Your task to perform on an android device: open app "Gmail" (install if not already installed) and go to login screen Image 0: 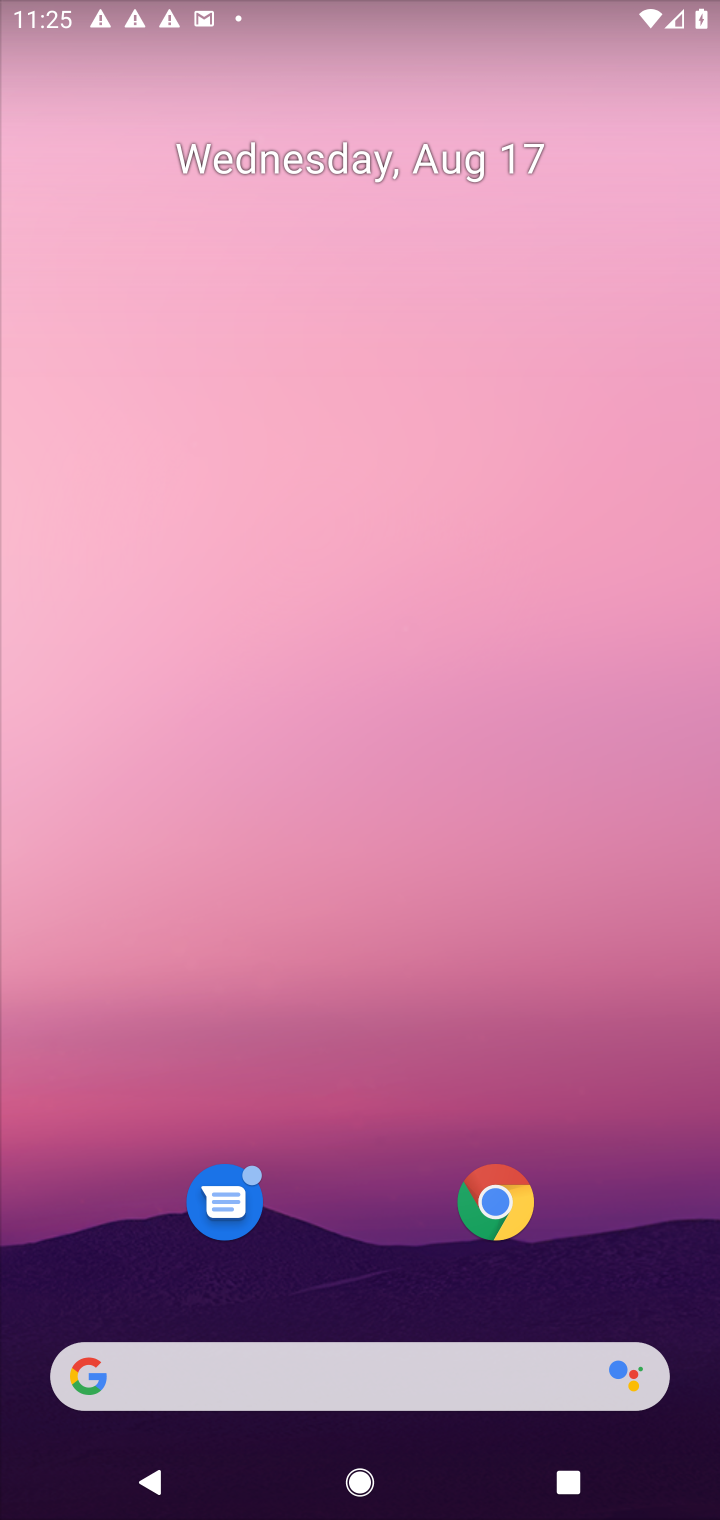
Step 0: drag from (349, 1105) to (264, 259)
Your task to perform on an android device: open app "Gmail" (install if not already installed) and go to login screen Image 1: 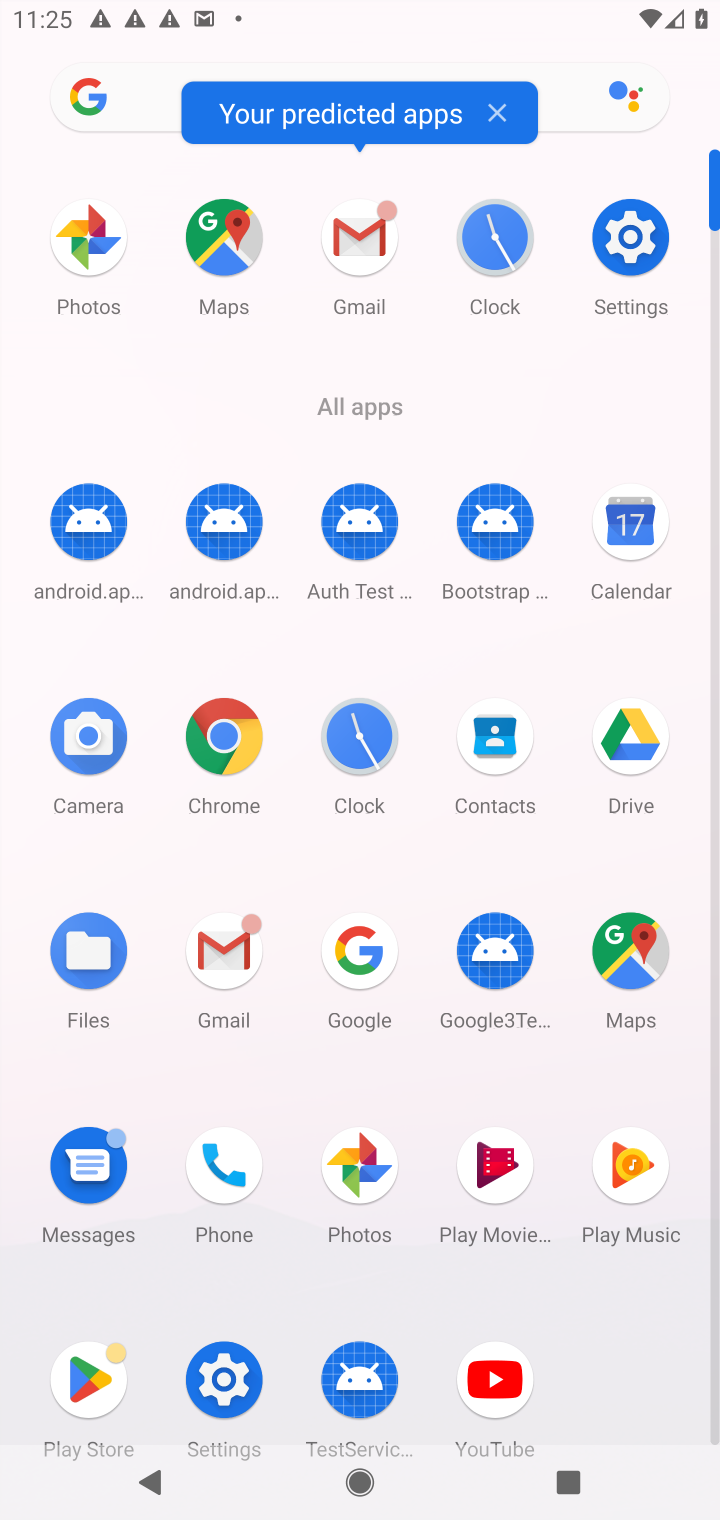
Step 1: click (213, 949)
Your task to perform on an android device: open app "Gmail" (install if not already installed) and go to login screen Image 2: 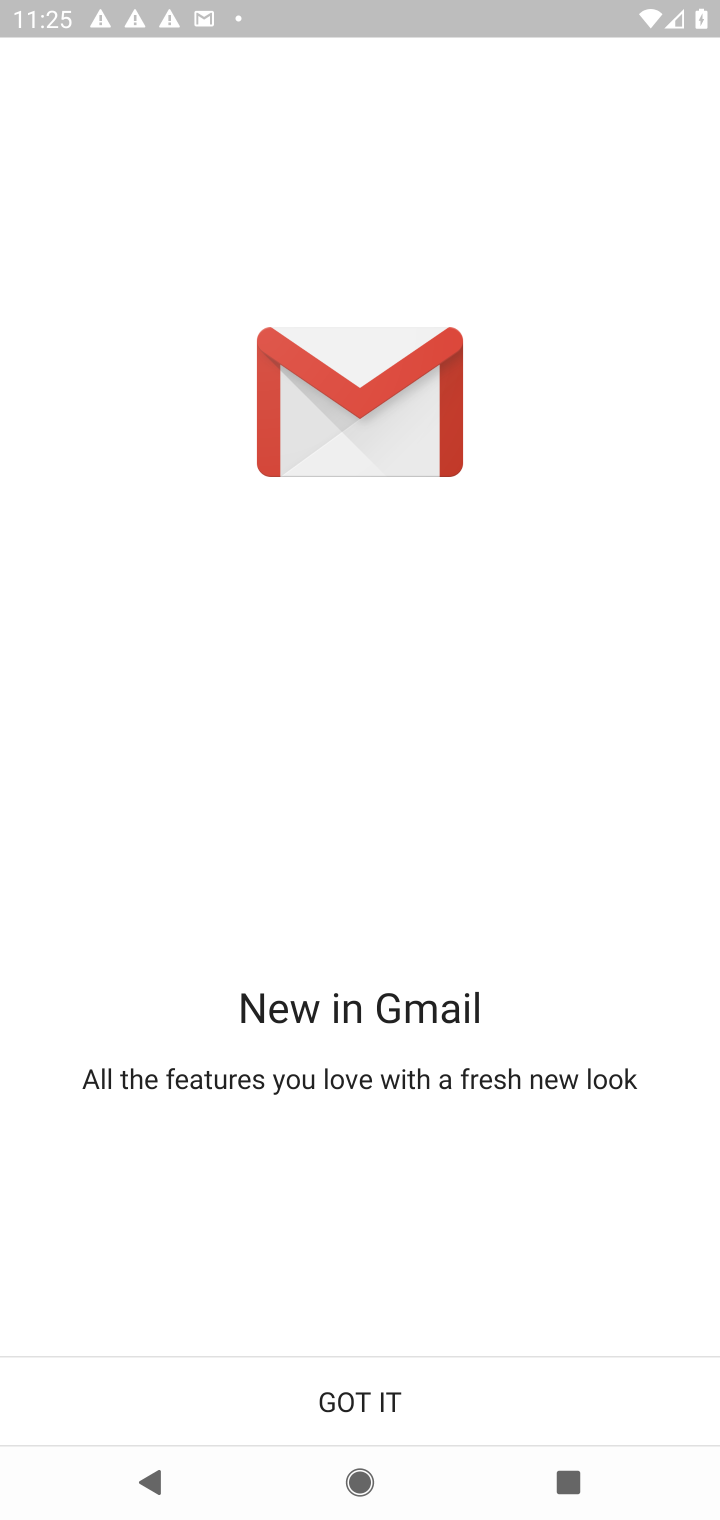
Step 2: click (281, 1401)
Your task to perform on an android device: open app "Gmail" (install if not already installed) and go to login screen Image 3: 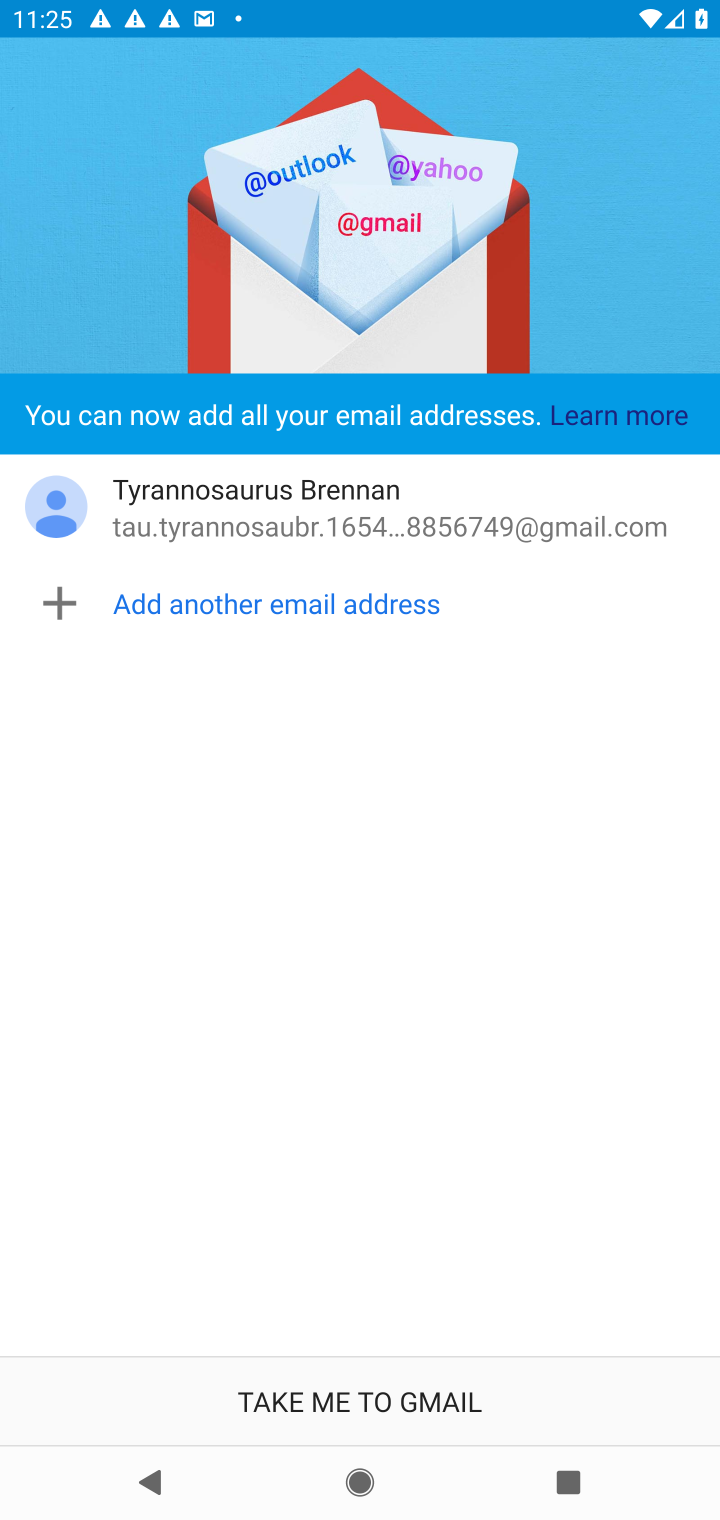
Step 3: click (428, 1373)
Your task to perform on an android device: open app "Gmail" (install if not already installed) and go to login screen Image 4: 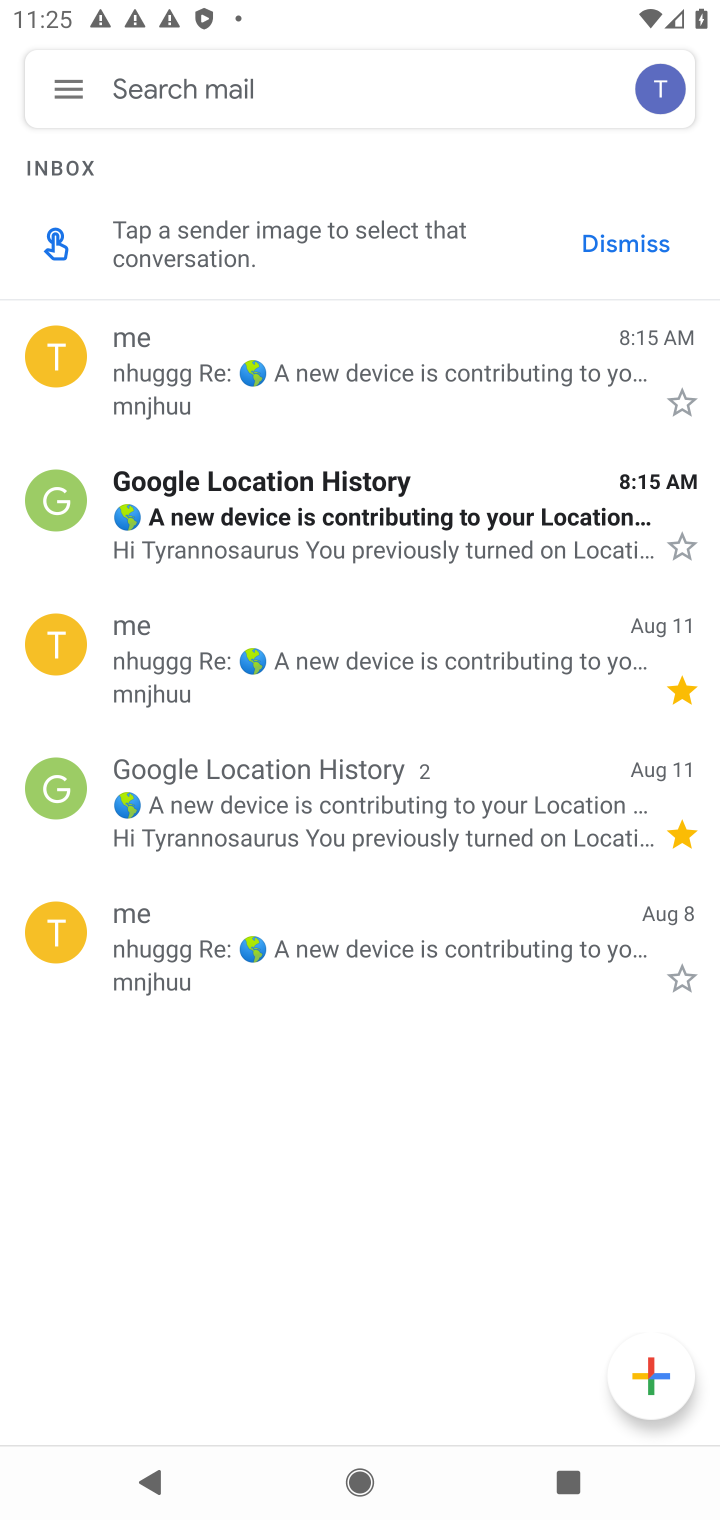
Step 4: click (670, 87)
Your task to perform on an android device: open app "Gmail" (install if not already installed) and go to login screen Image 5: 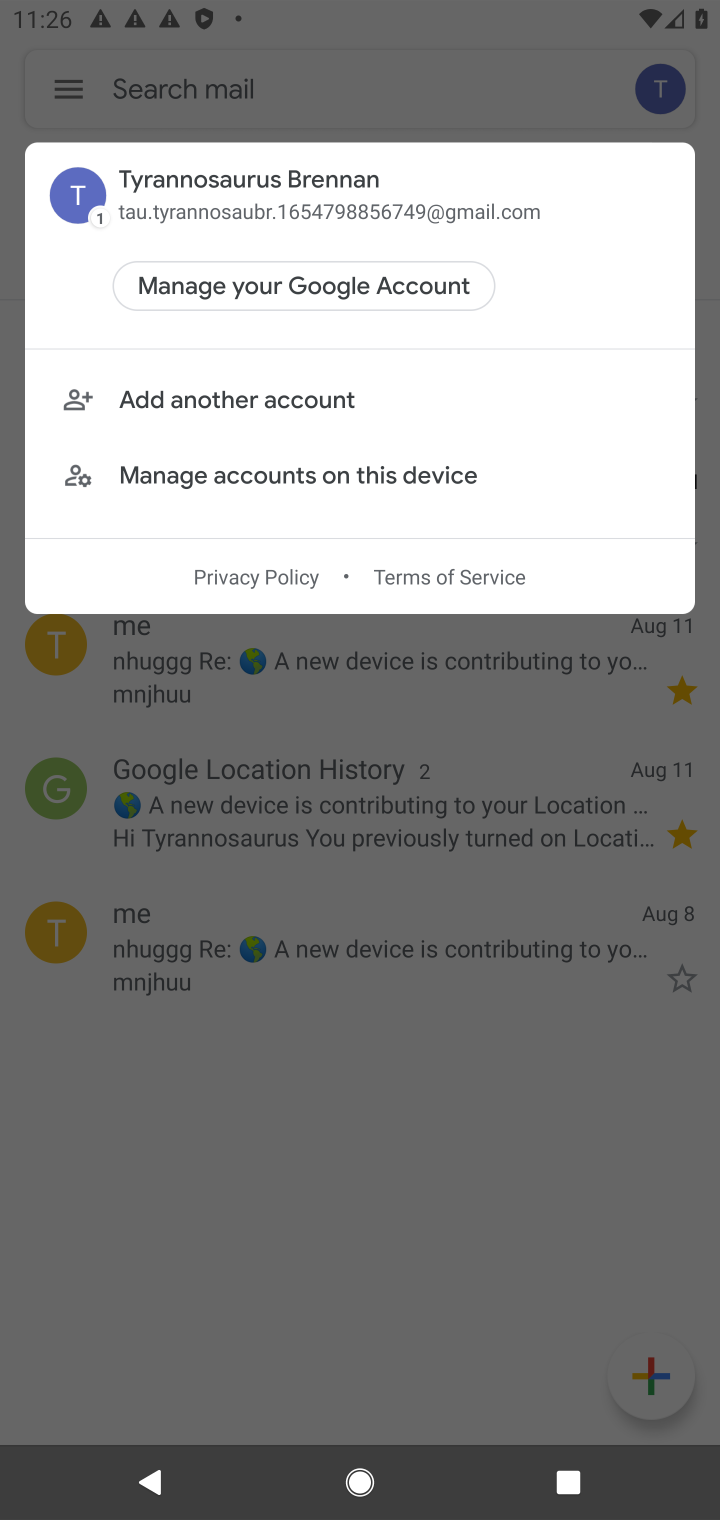
Step 5: click (163, 392)
Your task to perform on an android device: open app "Gmail" (install if not already installed) and go to login screen Image 6: 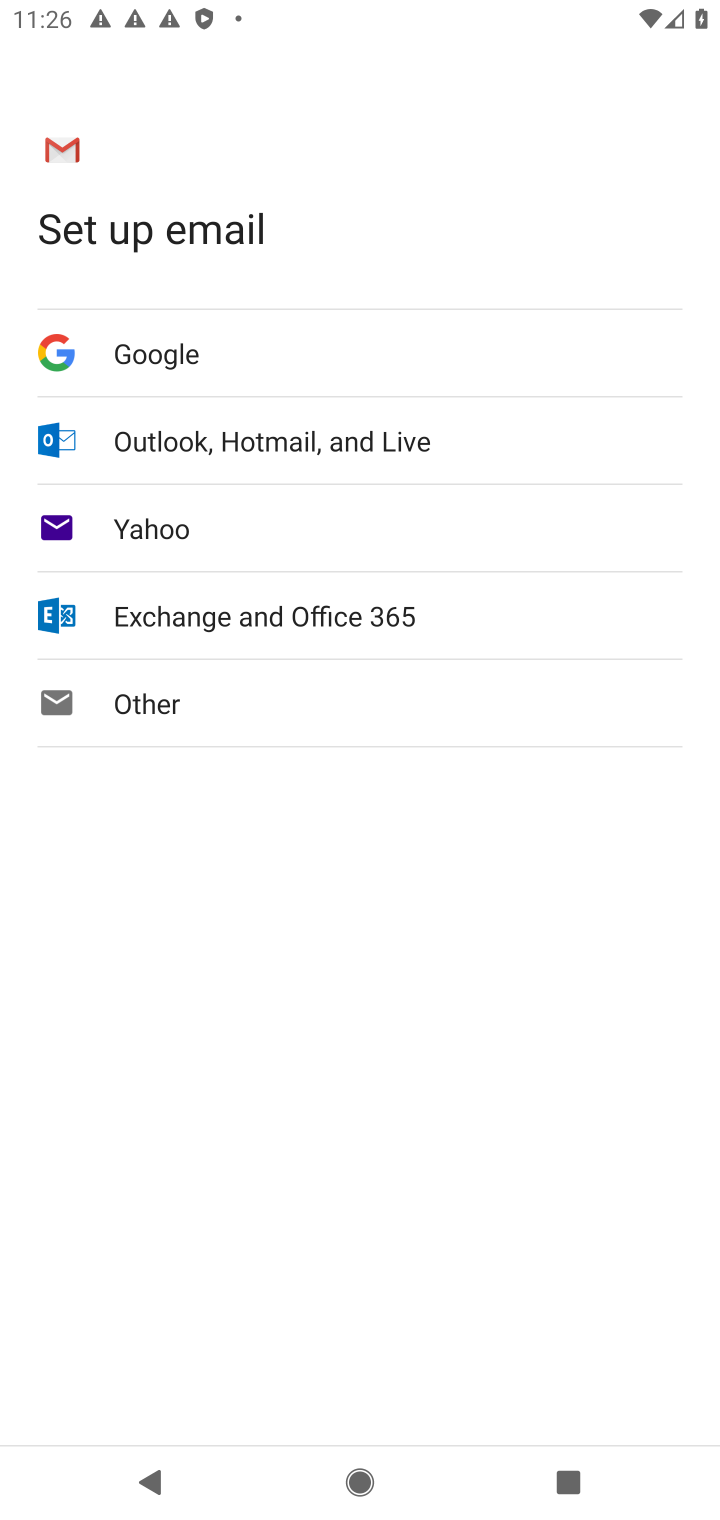
Step 6: task complete